Your task to perform on an android device: Open CNN.com Image 0: 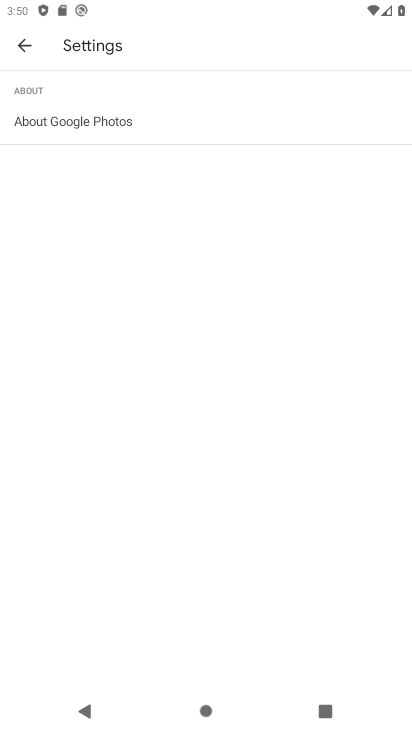
Step 0: press back button
Your task to perform on an android device: Open CNN.com Image 1: 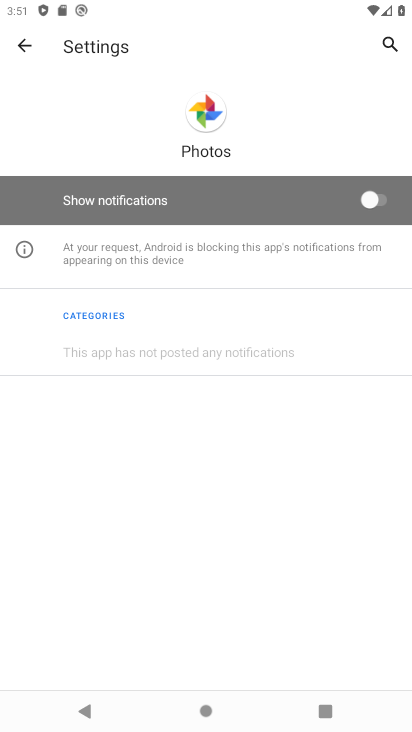
Step 1: press back button
Your task to perform on an android device: Open CNN.com Image 2: 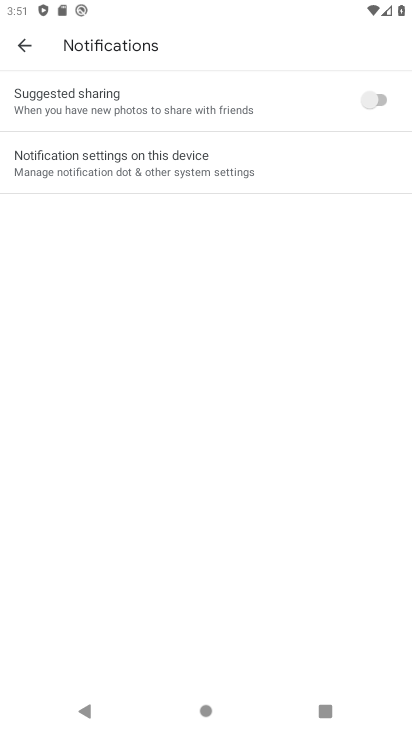
Step 2: click (16, 52)
Your task to perform on an android device: Open CNN.com Image 3: 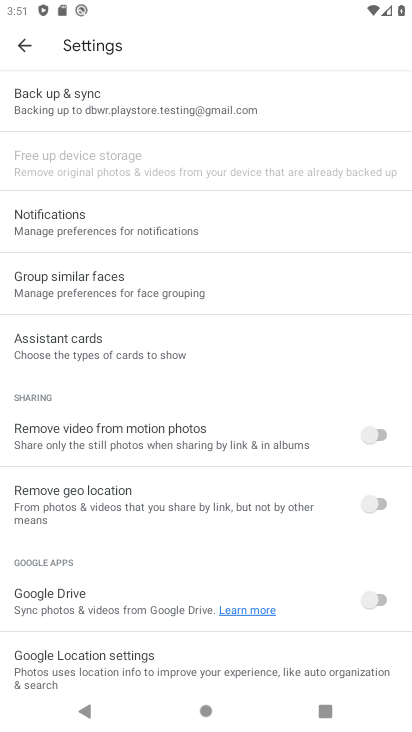
Step 3: click (20, 38)
Your task to perform on an android device: Open CNN.com Image 4: 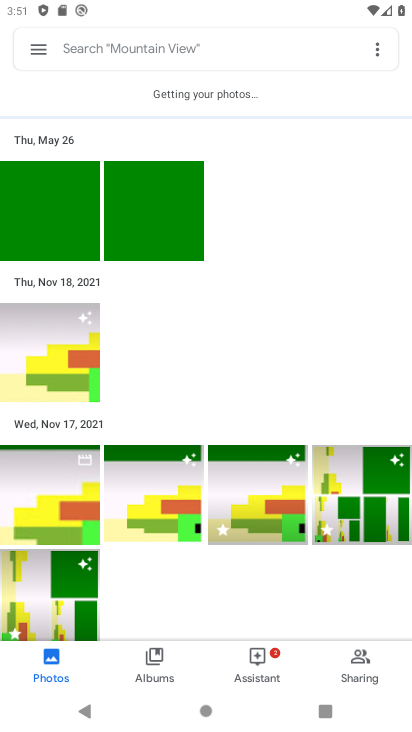
Step 4: press home button
Your task to perform on an android device: Open CNN.com Image 5: 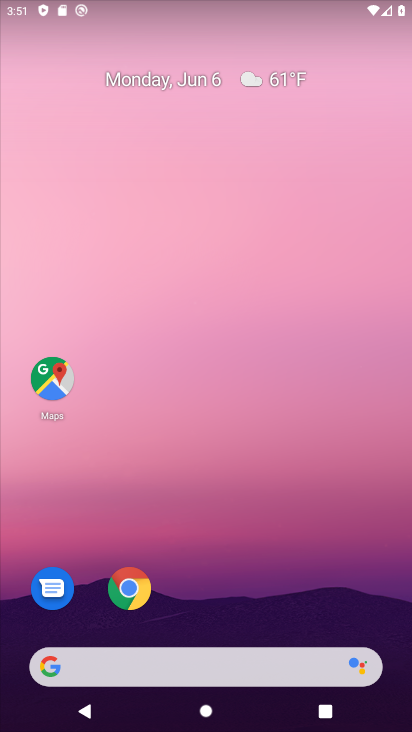
Step 5: drag from (217, 648) to (178, 4)
Your task to perform on an android device: Open CNN.com Image 6: 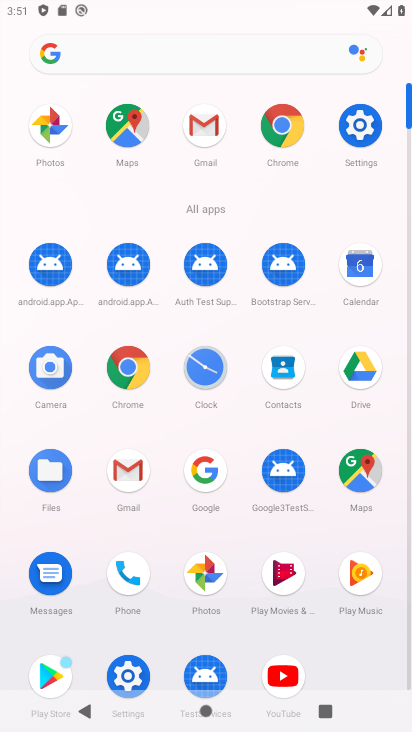
Step 6: click (279, 124)
Your task to perform on an android device: Open CNN.com Image 7: 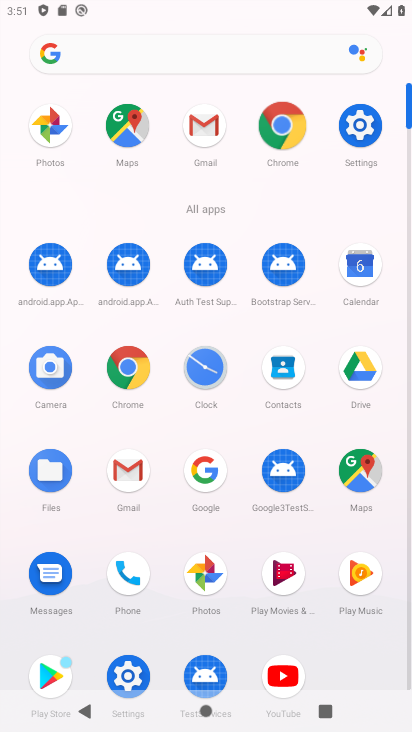
Step 7: click (278, 124)
Your task to perform on an android device: Open CNN.com Image 8: 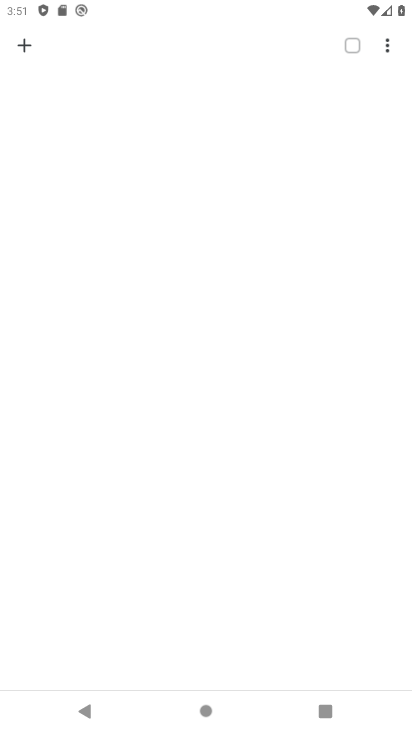
Step 8: click (50, 47)
Your task to perform on an android device: Open CNN.com Image 9: 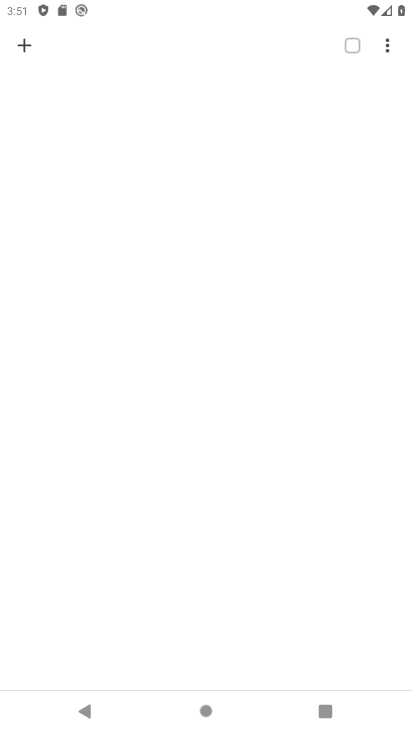
Step 9: click (50, 47)
Your task to perform on an android device: Open CNN.com Image 10: 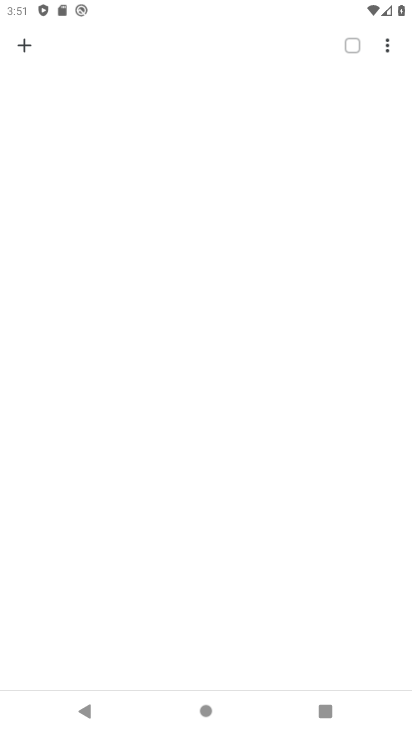
Step 10: click (49, 46)
Your task to perform on an android device: Open CNN.com Image 11: 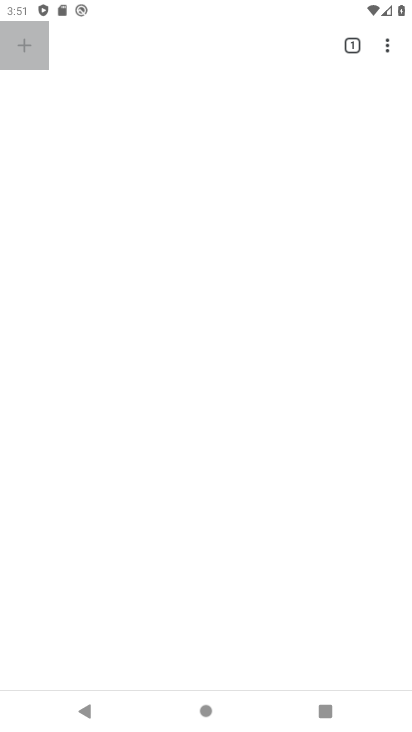
Step 11: click (25, 53)
Your task to perform on an android device: Open CNN.com Image 12: 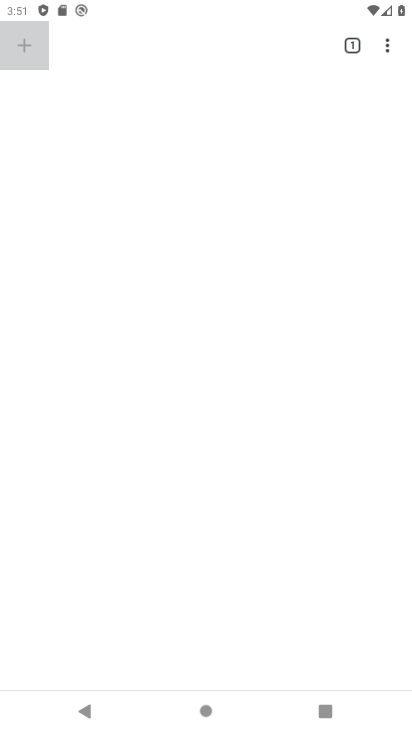
Step 12: click (24, 54)
Your task to perform on an android device: Open CNN.com Image 13: 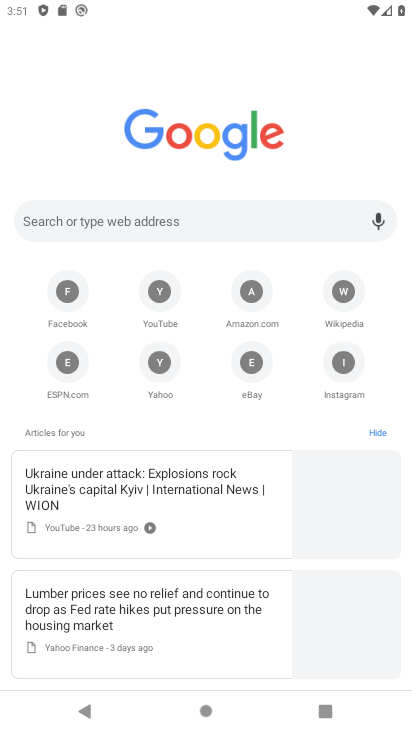
Step 13: click (23, 54)
Your task to perform on an android device: Open CNN.com Image 14: 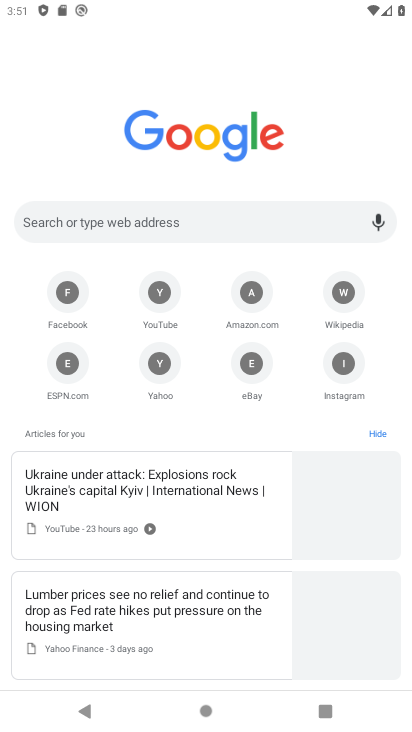
Step 14: click (22, 54)
Your task to perform on an android device: Open CNN.com Image 15: 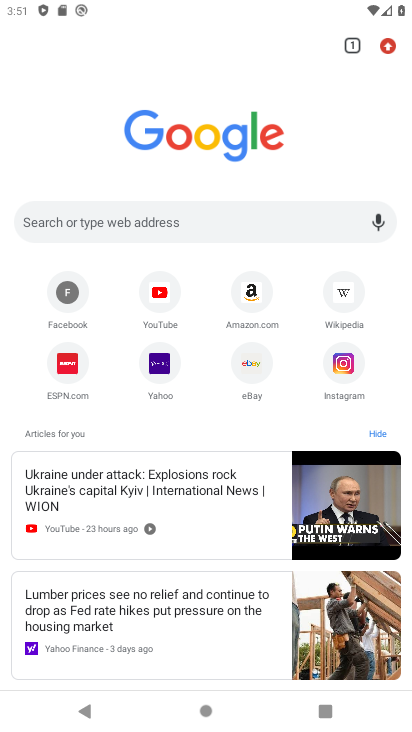
Step 15: click (130, 221)
Your task to perform on an android device: Open CNN.com Image 16: 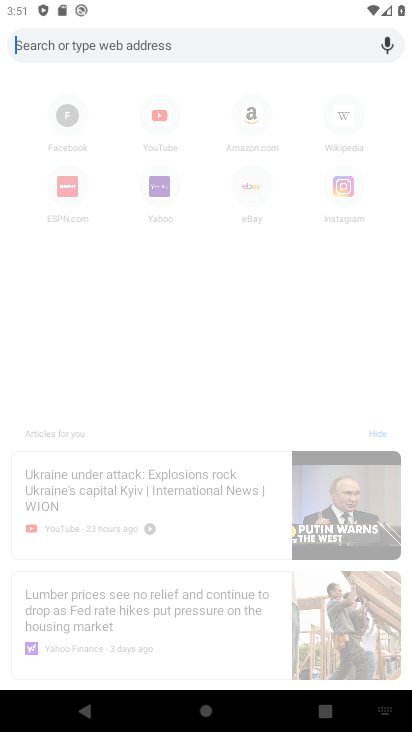
Step 16: type "cnn.com"
Your task to perform on an android device: Open CNN.com Image 17: 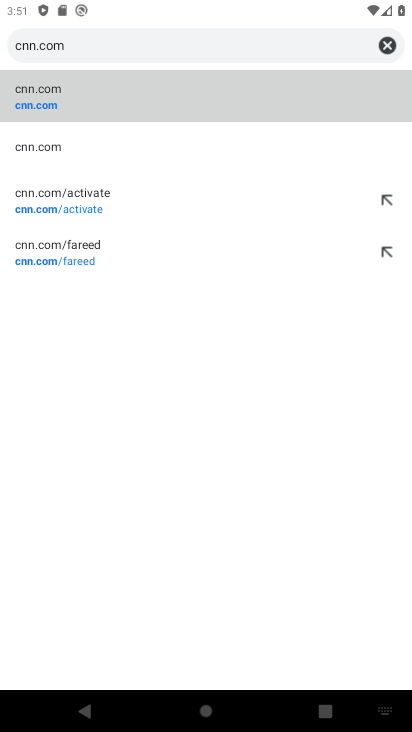
Step 17: click (42, 98)
Your task to perform on an android device: Open CNN.com Image 18: 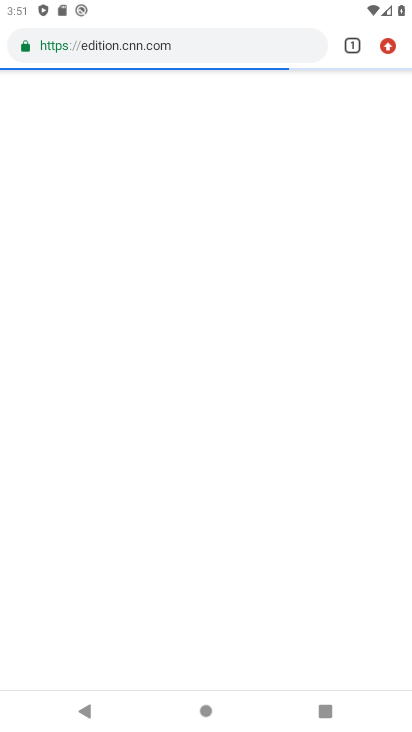
Step 18: task complete